Your task to perform on an android device: Open the stopwatch Image 0: 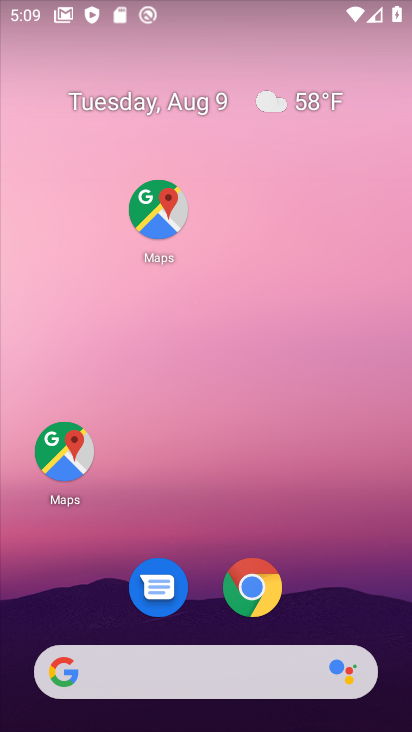
Step 0: drag from (208, 440) to (213, 182)
Your task to perform on an android device: Open the stopwatch Image 1: 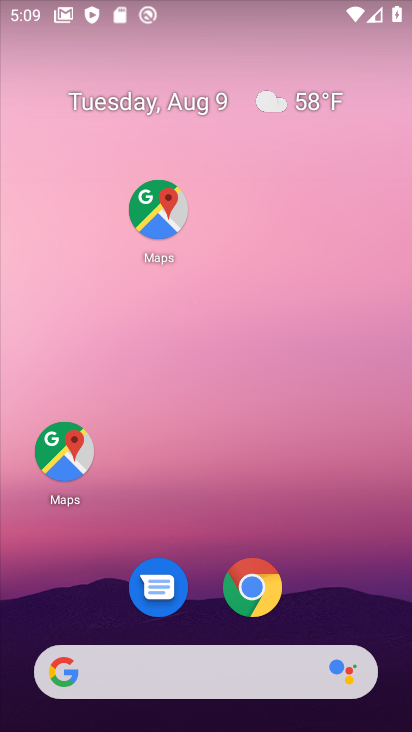
Step 1: drag from (220, 498) to (174, 195)
Your task to perform on an android device: Open the stopwatch Image 2: 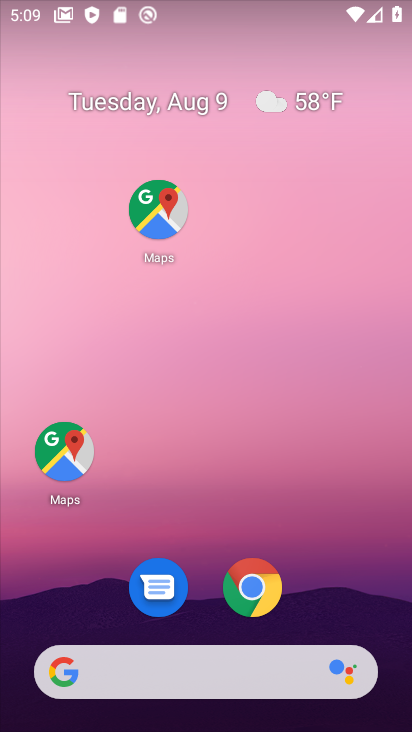
Step 2: drag from (218, 362) to (231, 156)
Your task to perform on an android device: Open the stopwatch Image 3: 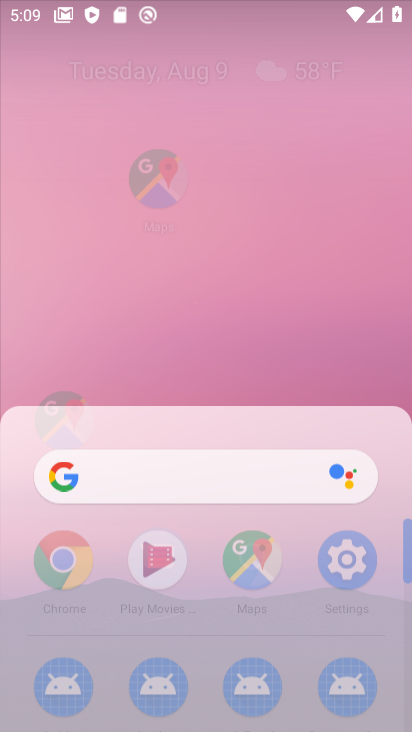
Step 3: drag from (258, 467) to (273, 0)
Your task to perform on an android device: Open the stopwatch Image 4: 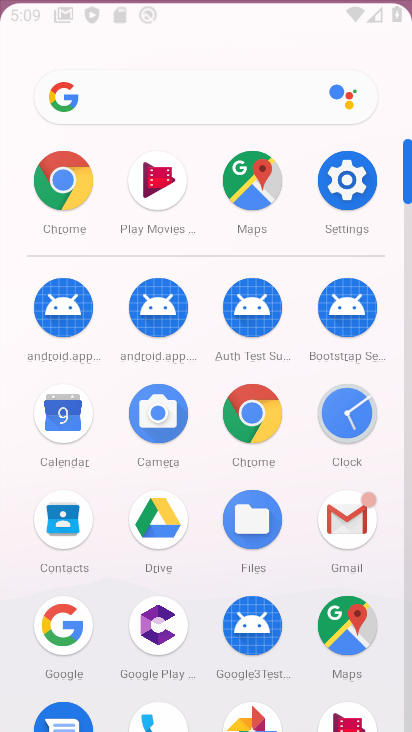
Step 4: drag from (166, 485) to (202, 64)
Your task to perform on an android device: Open the stopwatch Image 5: 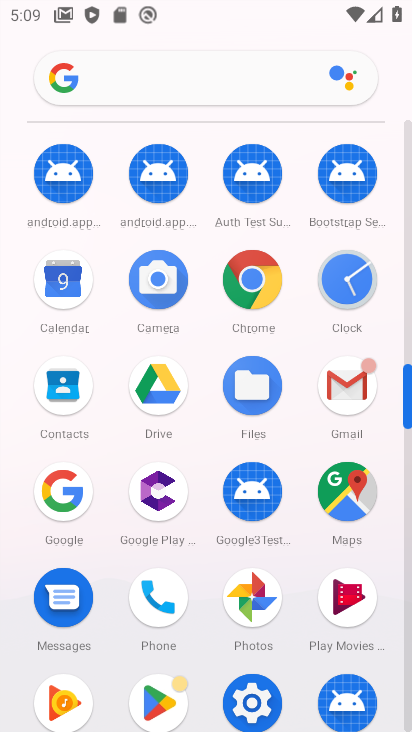
Step 5: drag from (210, 380) to (212, 315)
Your task to perform on an android device: Open the stopwatch Image 6: 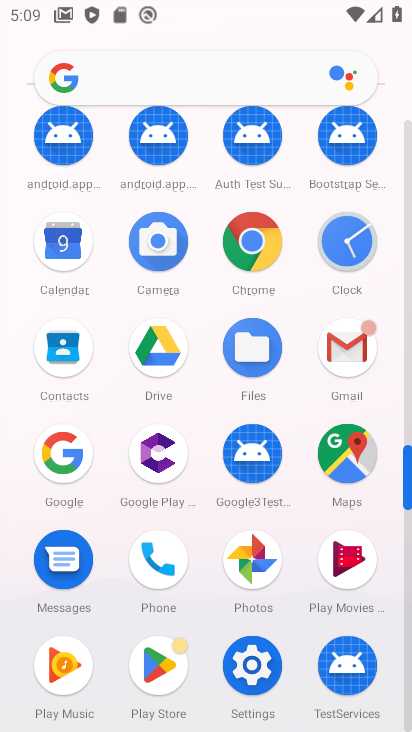
Step 6: click (336, 240)
Your task to perform on an android device: Open the stopwatch Image 7: 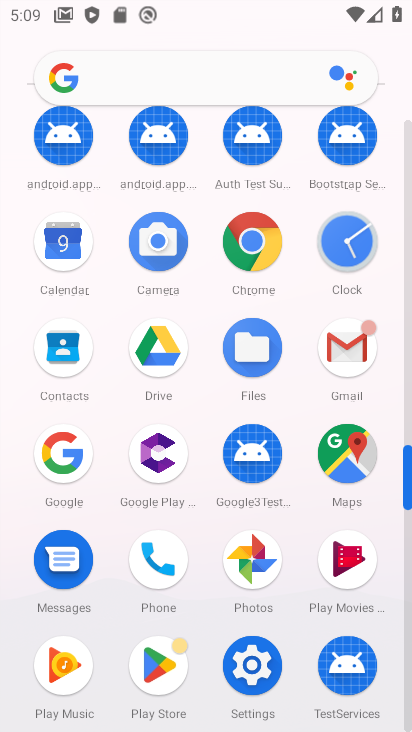
Step 7: click (343, 248)
Your task to perform on an android device: Open the stopwatch Image 8: 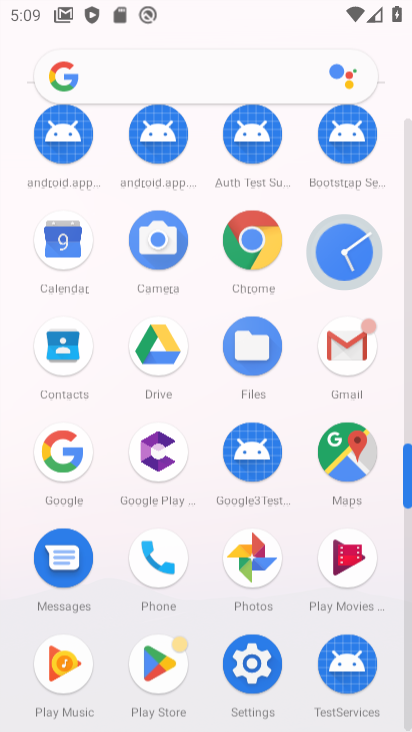
Step 8: click (343, 249)
Your task to perform on an android device: Open the stopwatch Image 9: 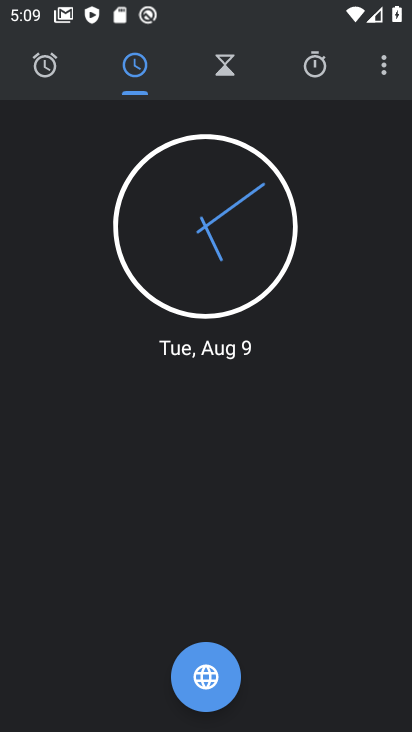
Step 9: click (355, 244)
Your task to perform on an android device: Open the stopwatch Image 10: 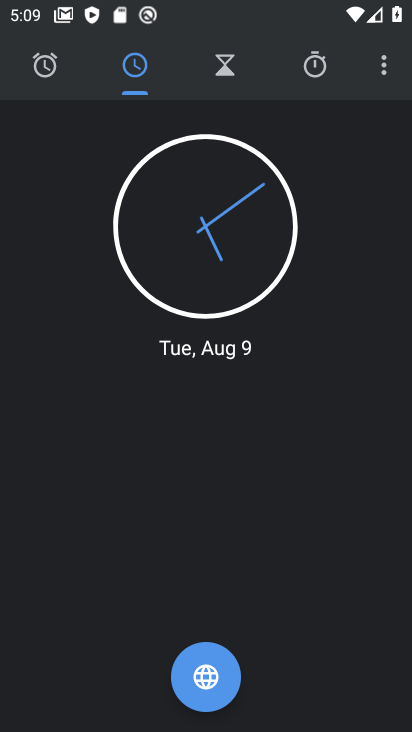
Step 10: click (320, 65)
Your task to perform on an android device: Open the stopwatch Image 11: 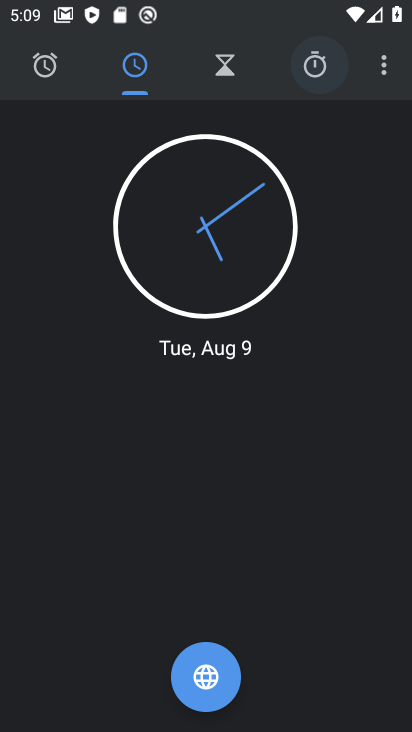
Step 11: click (320, 65)
Your task to perform on an android device: Open the stopwatch Image 12: 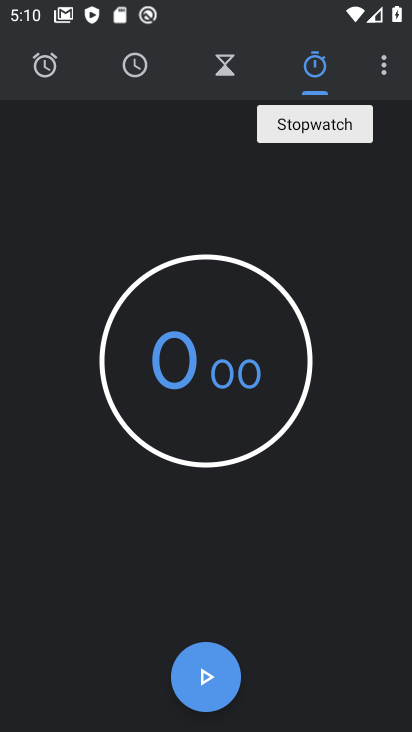
Step 12: task complete